Your task to perform on an android device: Open Yahoo.com Image 0: 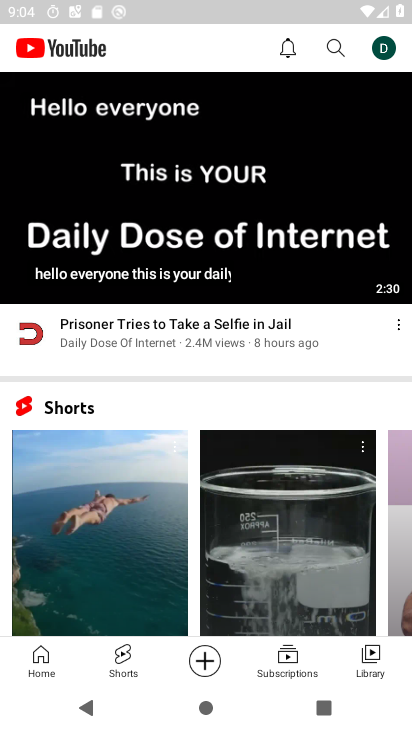
Step 0: press home button
Your task to perform on an android device: Open Yahoo.com Image 1: 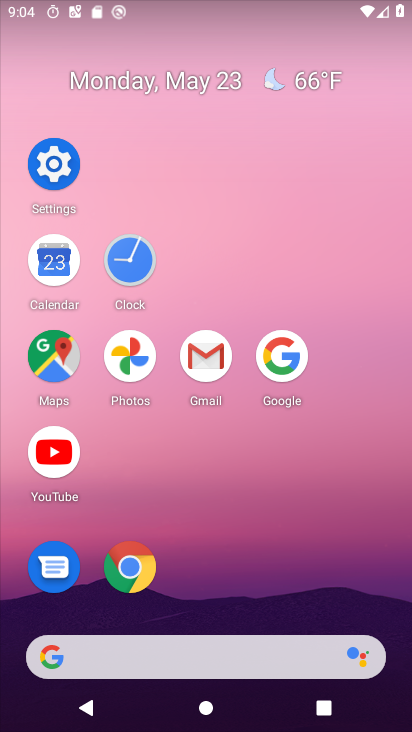
Step 1: click (144, 566)
Your task to perform on an android device: Open Yahoo.com Image 2: 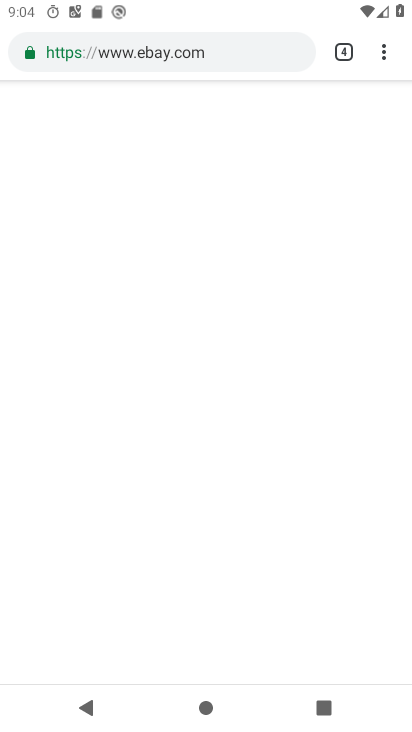
Step 2: click (343, 63)
Your task to perform on an android device: Open Yahoo.com Image 3: 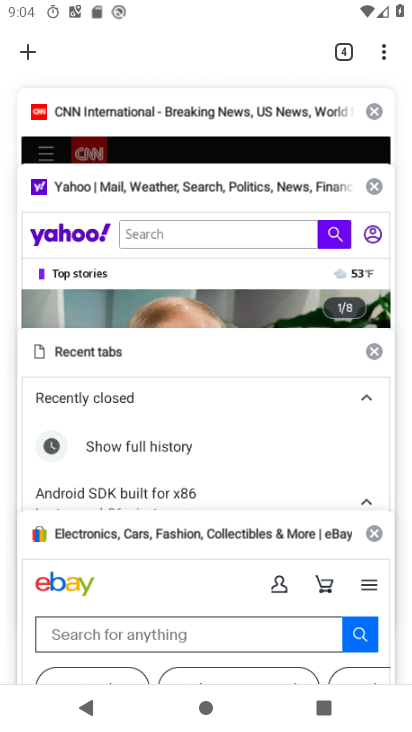
Step 3: click (115, 211)
Your task to perform on an android device: Open Yahoo.com Image 4: 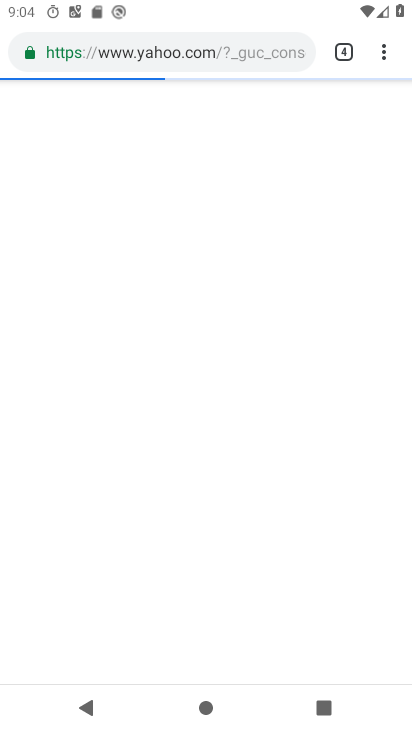
Step 4: task complete